Your task to perform on an android device: read, delete, or share a saved page in the chrome app Image 0: 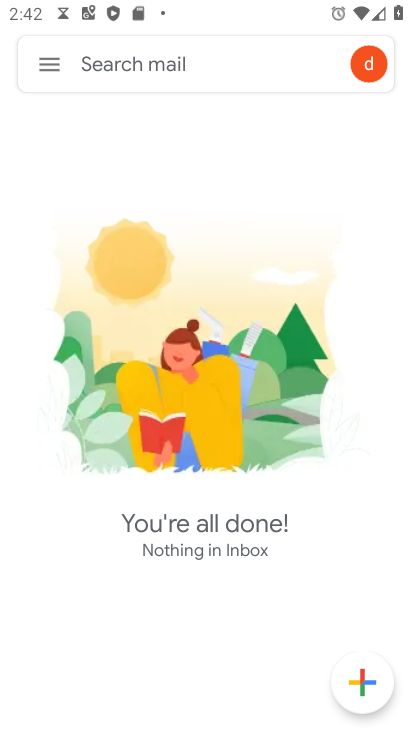
Step 0: press back button
Your task to perform on an android device: read, delete, or share a saved page in the chrome app Image 1: 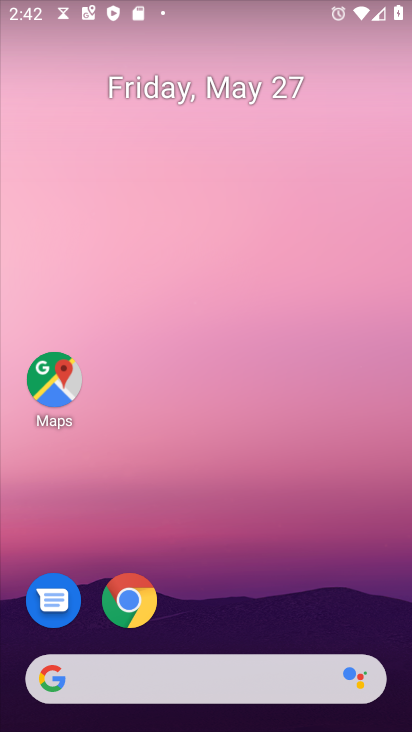
Step 1: drag from (189, 574) to (178, 172)
Your task to perform on an android device: read, delete, or share a saved page in the chrome app Image 2: 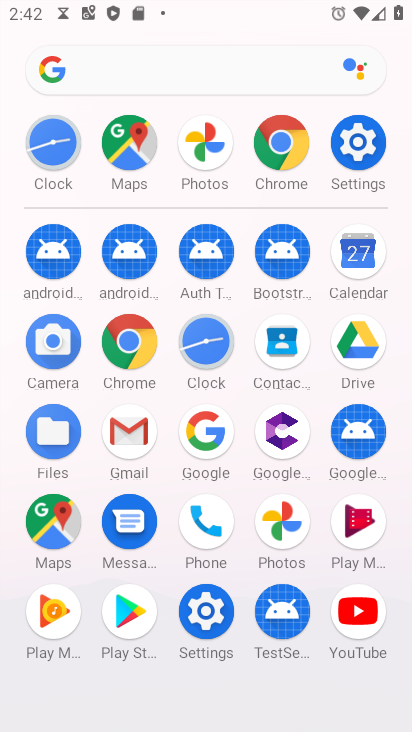
Step 2: click (130, 334)
Your task to perform on an android device: read, delete, or share a saved page in the chrome app Image 3: 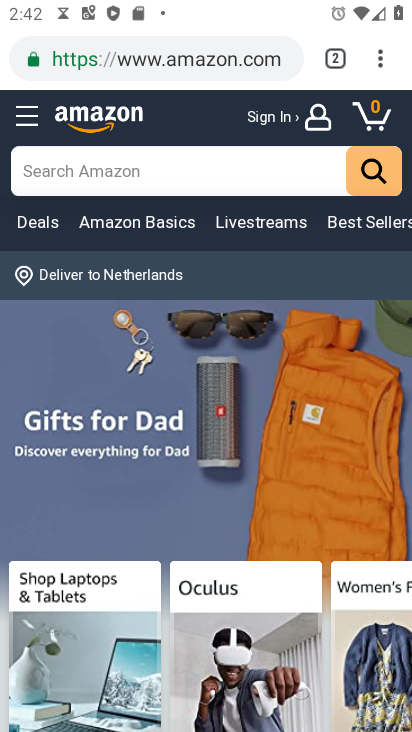
Step 3: task complete